Your task to perform on an android device: change the clock display to show seconds Image 0: 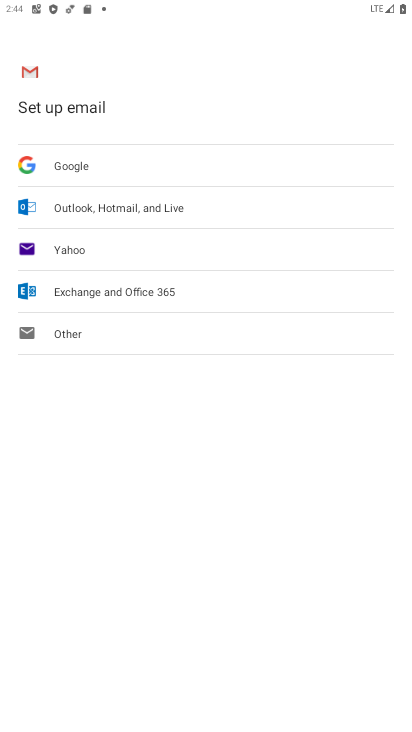
Step 0: press home button
Your task to perform on an android device: change the clock display to show seconds Image 1: 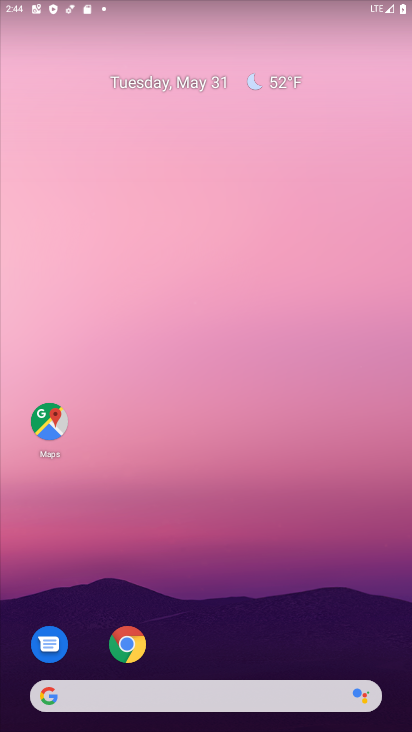
Step 1: drag from (313, 598) to (225, 123)
Your task to perform on an android device: change the clock display to show seconds Image 2: 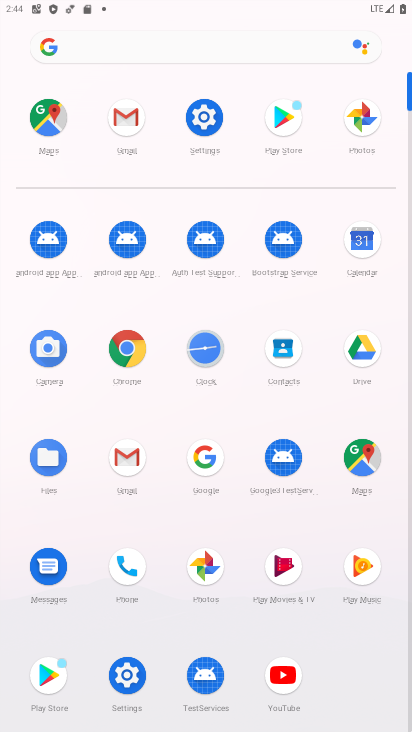
Step 2: click (199, 348)
Your task to perform on an android device: change the clock display to show seconds Image 3: 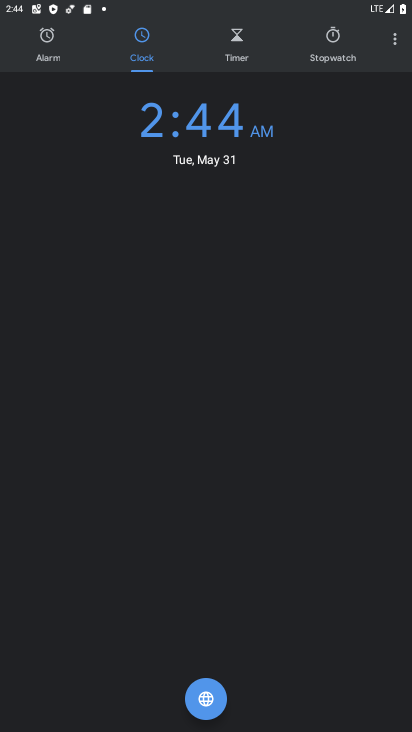
Step 3: click (393, 33)
Your task to perform on an android device: change the clock display to show seconds Image 4: 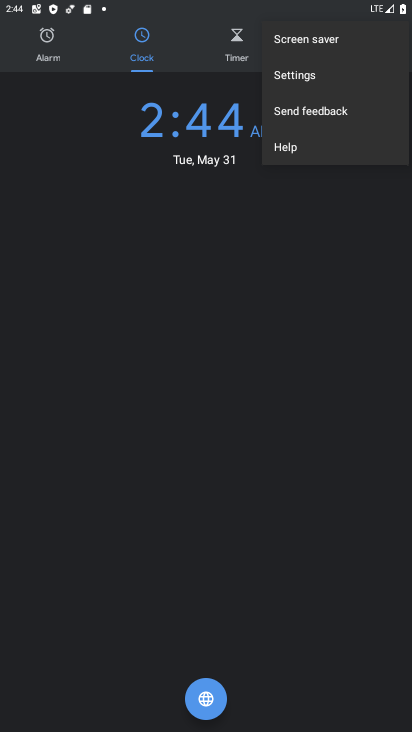
Step 4: click (325, 77)
Your task to perform on an android device: change the clock display to show seconds Image 5: 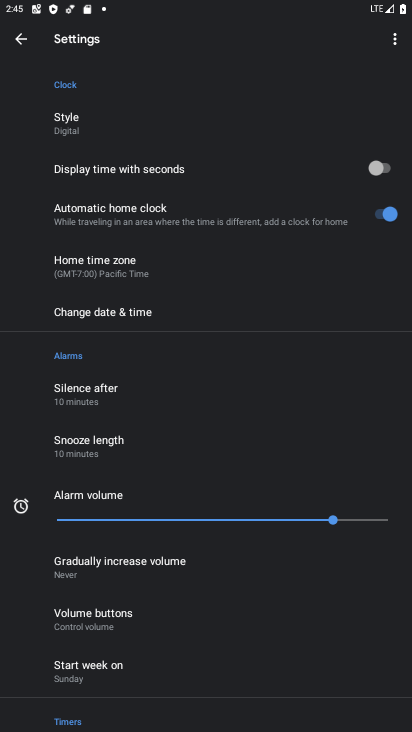
Step 5: click (381, 169)
Your task to perform on an android device: change the clock display to show seconds Image 6: 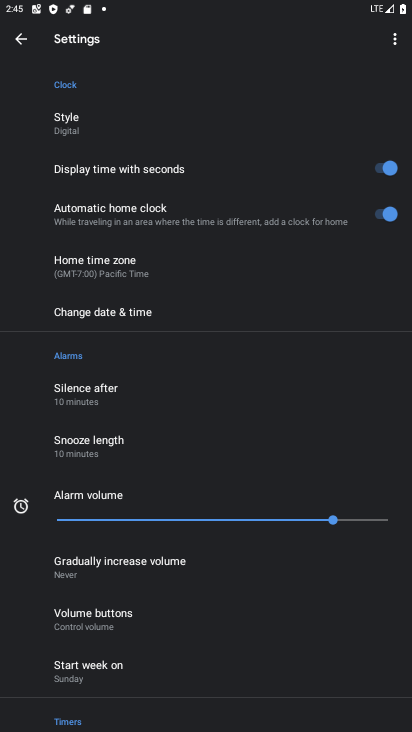
Step 6: task complete